Your task to perform on an android device: change the clock style Image 0: 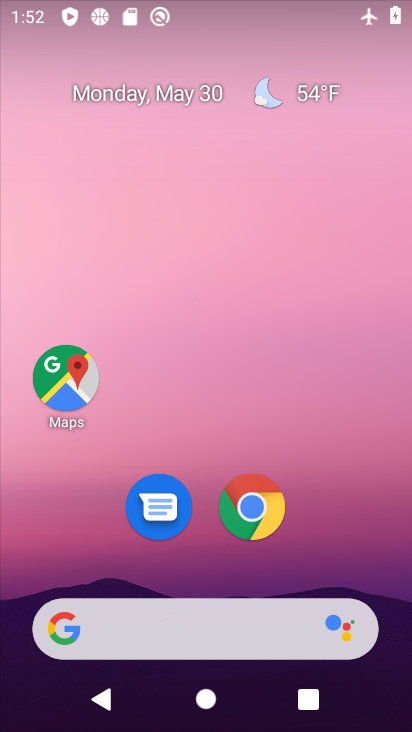
Step 0: drag from (389, 623) to (357, 178)
Your task to perform on an android device: change the clock style Image 1: 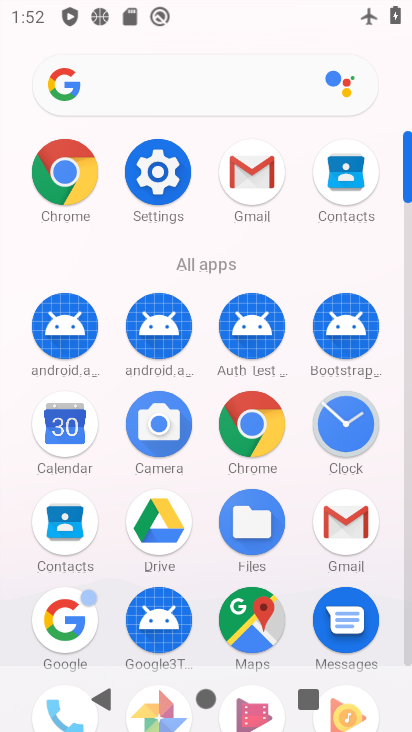
Step 1: click (351, 440)
Your task to perform on an android device: change the clock style Image 2: 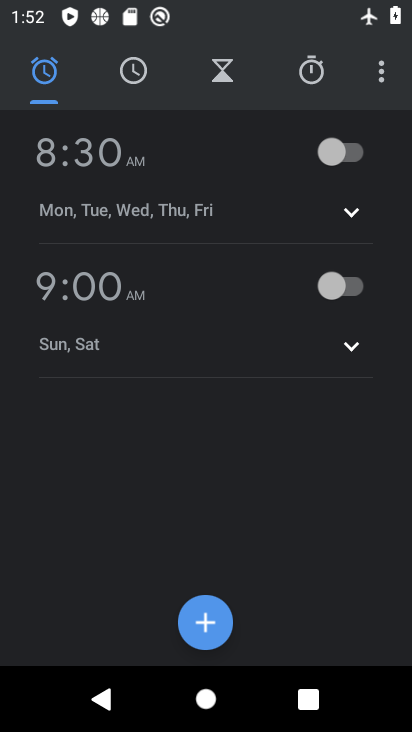
Step 2: click (387, 67)
Your task to perform on an android device: change the clock style Image 3: 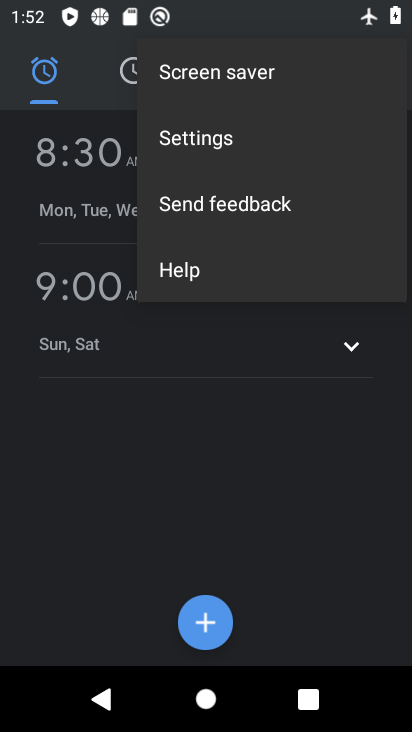
Step 3: click (301, 146)
Your task to perform on an android device: change the clock style Image 4: 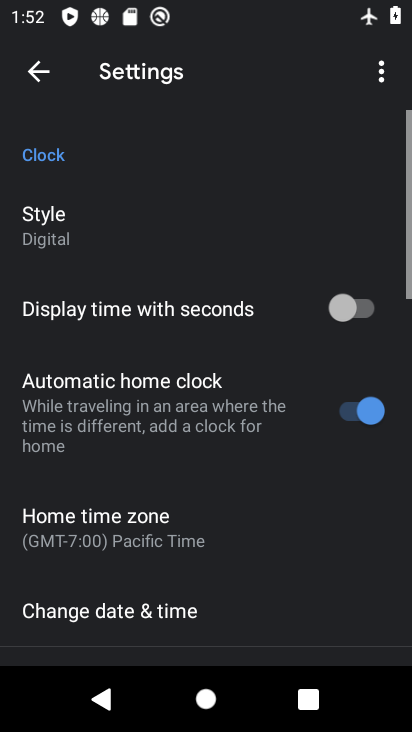
Step 4: click (163, 225)
Your task to perform on an android device: change the clock style Image 5: 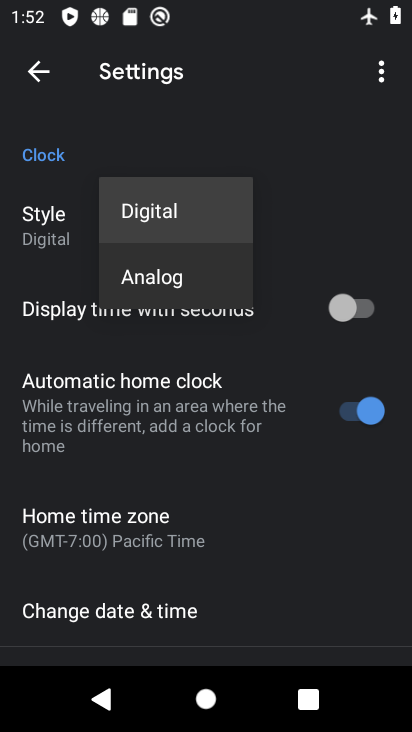
Step 5: click (156, 283)
Your task to perform on an android device: change the clock style Image 6: 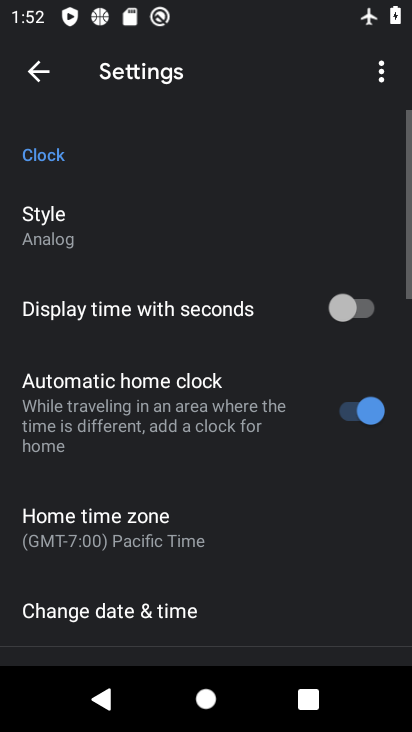
Step 6: task complete